Your task to perform on an android device: change the clock display to show seconds Image 0: 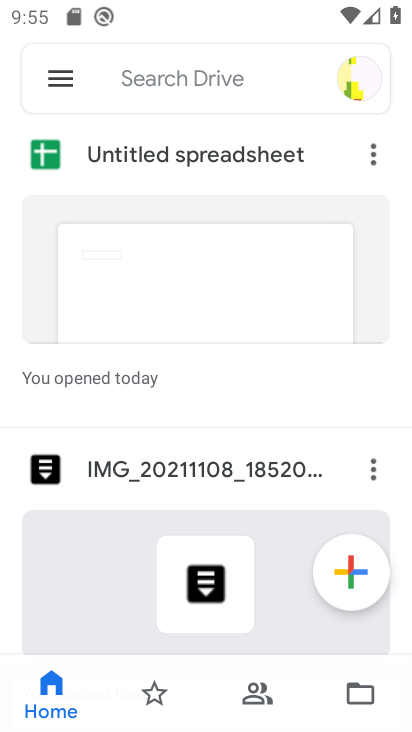
Step 0: press home button
Your task to perform on an android device: change the clock display to show seconds Image 1: 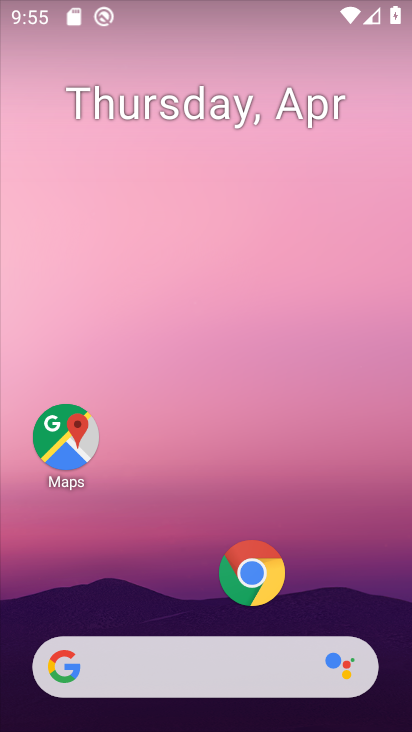
Step 1: drag from (217, 603) to (218, 109)
Your task to perform on an android device: change the clock display to show seconds Image 2: 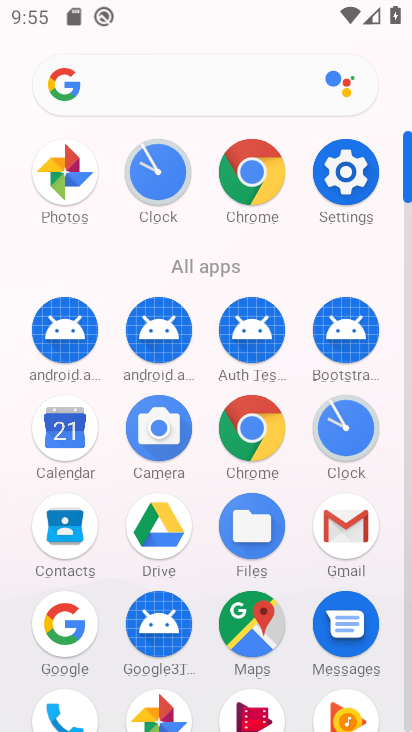
Step 2: click (335, 405)
Your task to perform on an android device: change the clock display to show seconds Image 3: 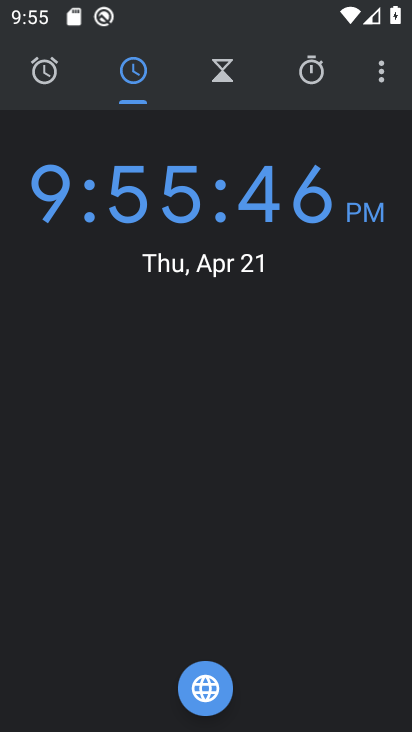
Step 3: click (377, 83)
Your task to perform on an android device: change the clock display to show seconds Image 4: 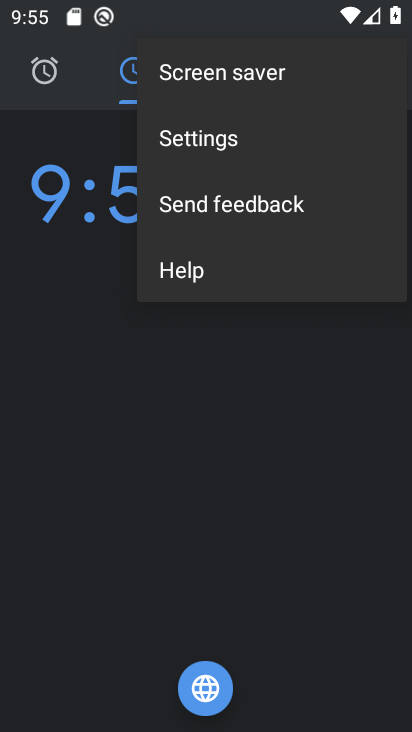
Step 4: click (271, 137)
Your task to perform on an android device: change the clock display to show seconds Image 5: 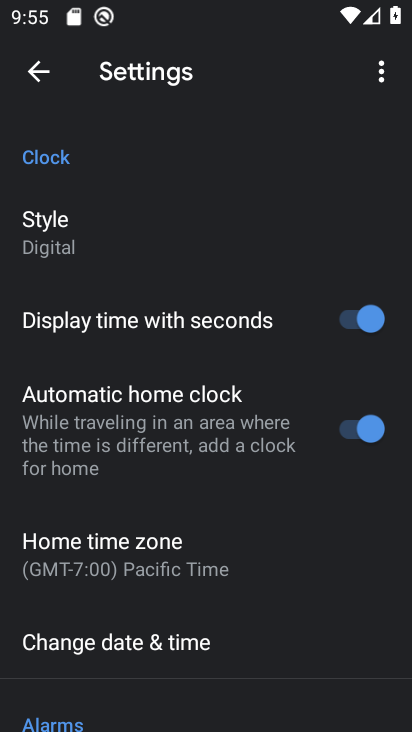
Step 5: task complete